Your task to perform on an android device: check google app version Image 0: 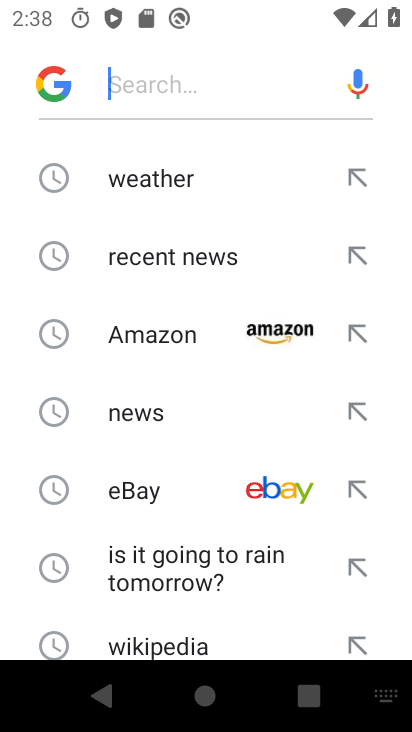
Step 0: press home button
Your task to perform on an android device: check google app version Image 1: 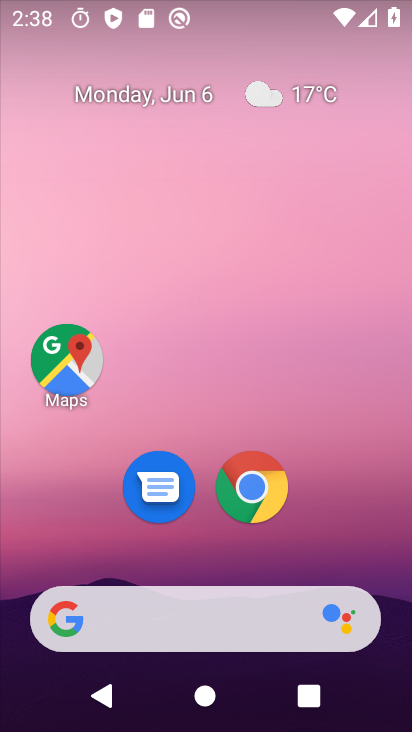
Step 1: drag from (148, 555) to (272, 39)
Your task to perform on an android device: check google app version Image 2: 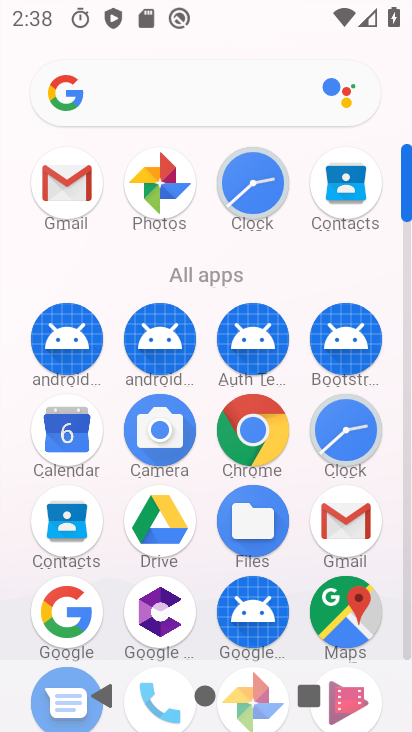
Step 2: drag from (220, 610) to (340, 314)
Your task to perform on an android device: check google app version Image 3: 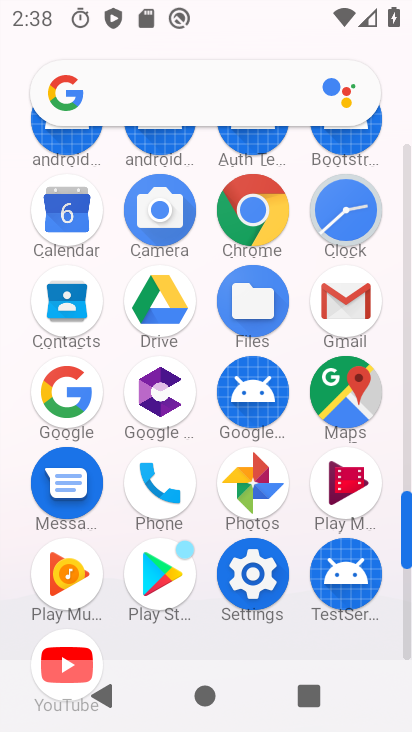
Step 3: click (251, 592)
Your task to perform on an android device: check google app version Image 4: 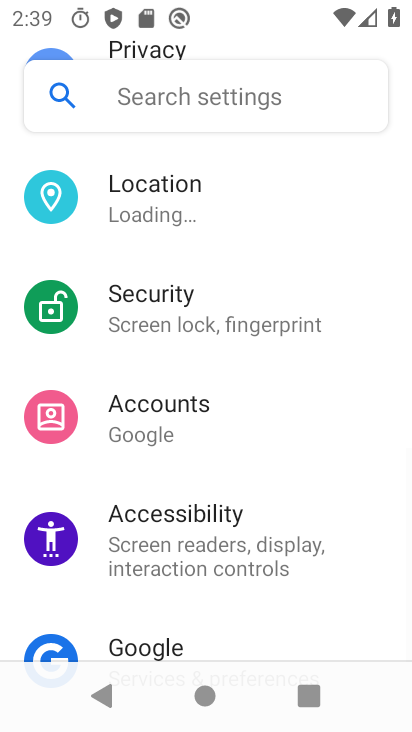
Step 4: drag from (222, 595) to (292, 644)
Your task to perform on an android device: check google app version Image 5: 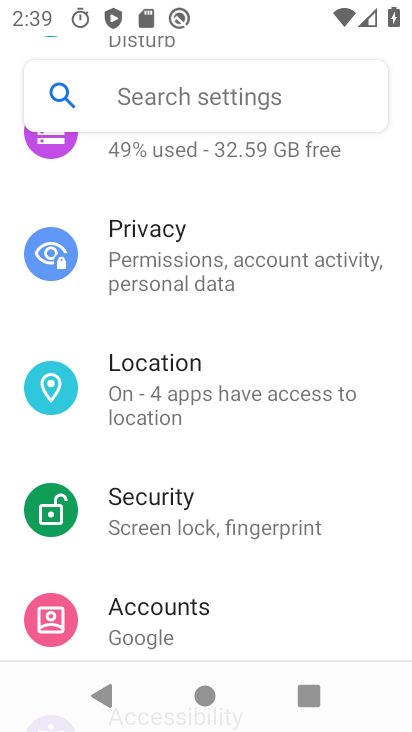
Step 5: drag from (271, 127) to (372, 650)
Your task to perform on an android device: check google app version Image 6: 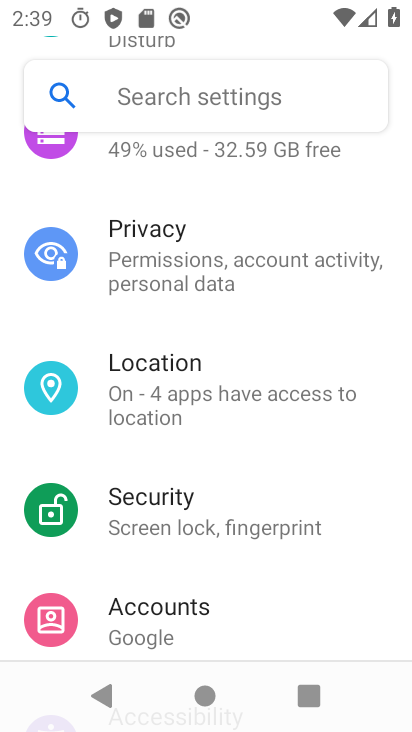
Step 6: drag from (322, 192) to (258, 532)
Your task to perform on an android device: check google app version Image 7: 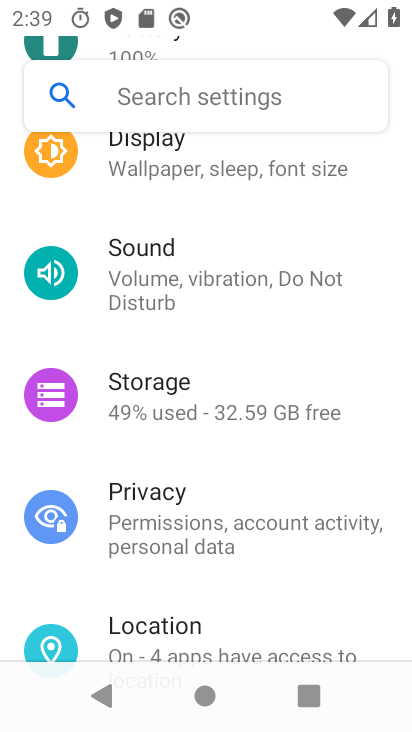
Step 7: drag from (276, 250) to (266, 712)
Your task to perform on an android device: check google app version Image 8: 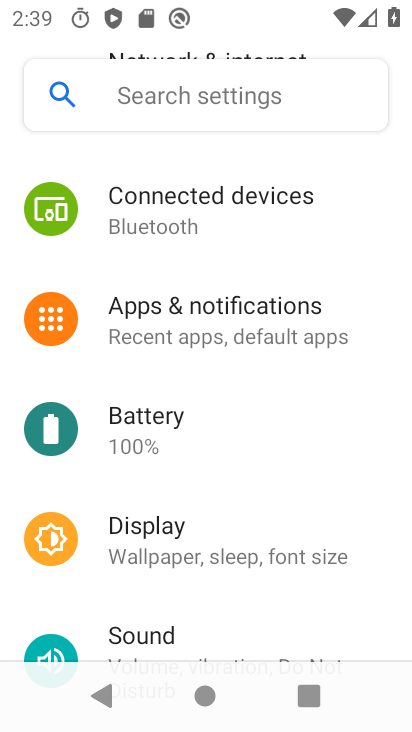
Step 8: drag from (259, 325) to (246, 605)
Your task to perform on an android device: check google app version Image 9: 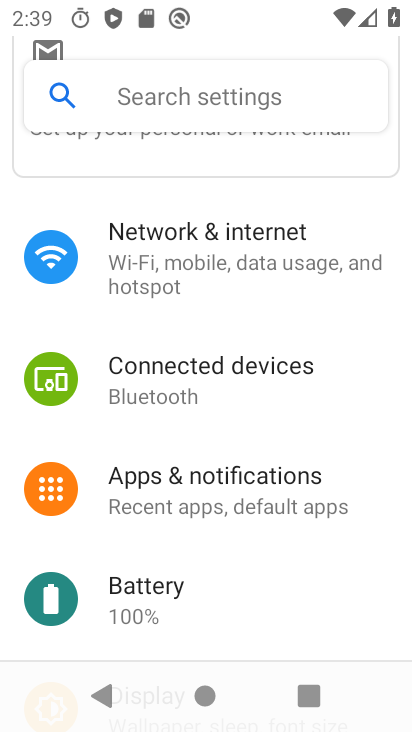
Step 9: drag from (224, 598) to (262, 563)
Your task to perform on an android device: check google app version Image 10: 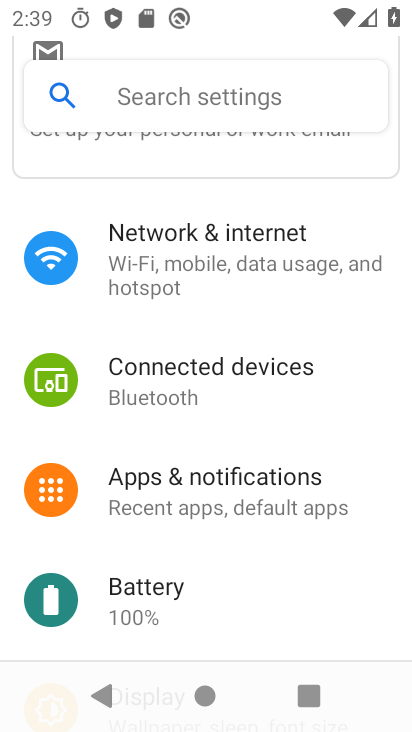
Step 10: drag from (201, 597) to (247, 418)
Your task to perform on an android device: check google app version Image 11: 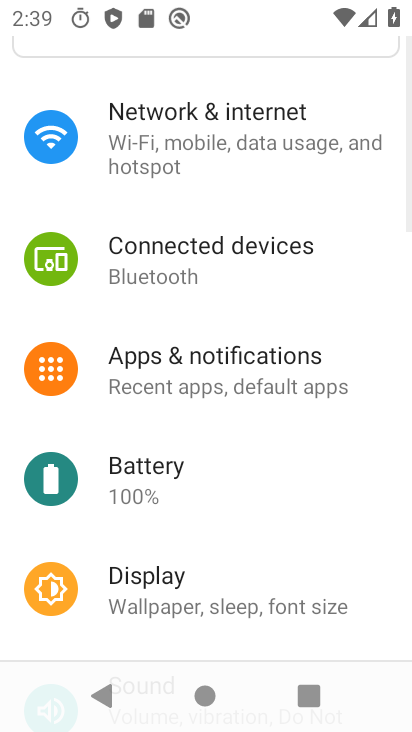
Step 11: click (245, 366)
Your task to perform on an android device: check google app version Image 12: 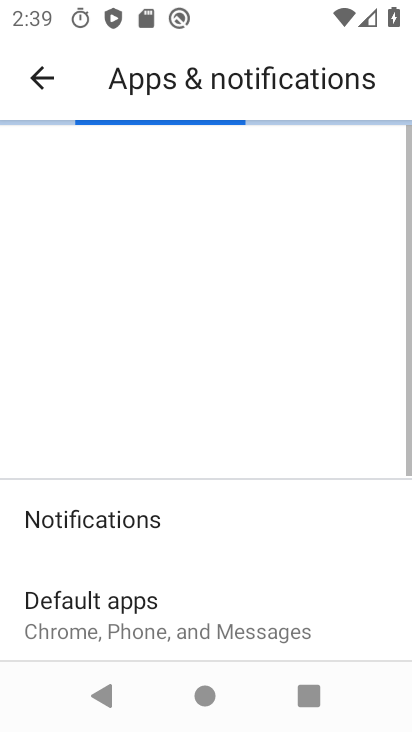
Step 12: click (245, 366)
Your task to perform on an android device: check google app version Image 13: 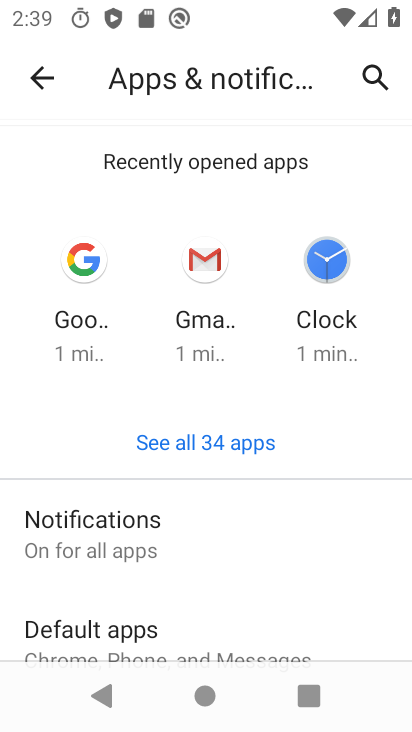
Step 13: drag from (198, 588) to (351, 199)
Your task to perform on an android device: check google app version Image 14: 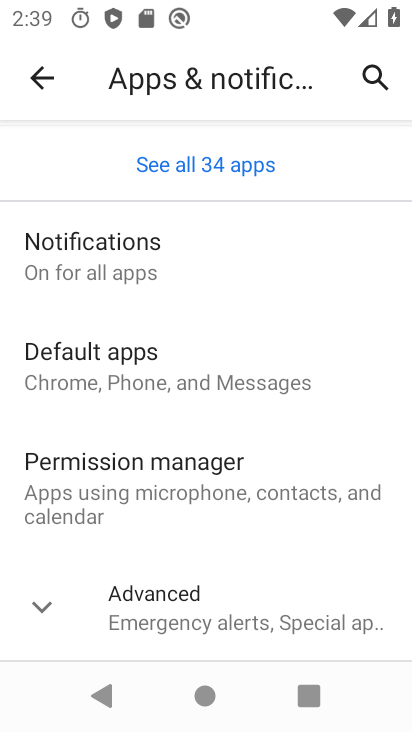
Step 14: drag from (179, 272) to (145, 654)
Your task to perform on an android device: check google app version Image 15: 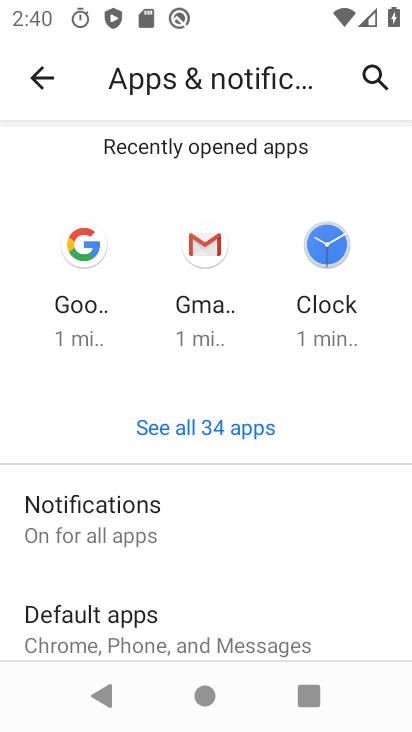
Step 15: click (228, 425)
Your task to perform on an android device: check google app version Image 16: 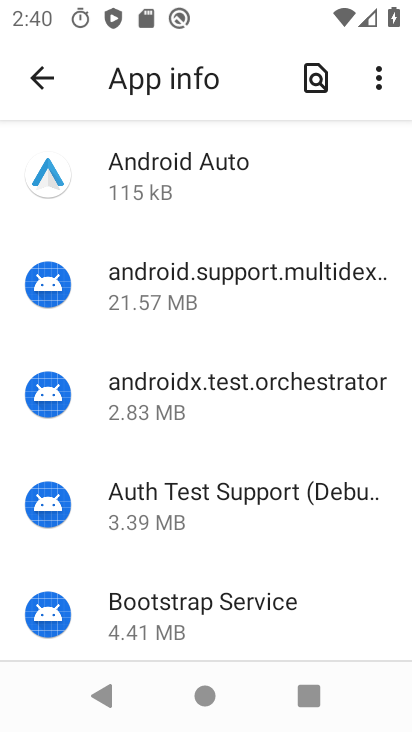
Step 16: drag from (181, 609) to (299, 109)
Your task to perform on an android device: check google app version Image 17: 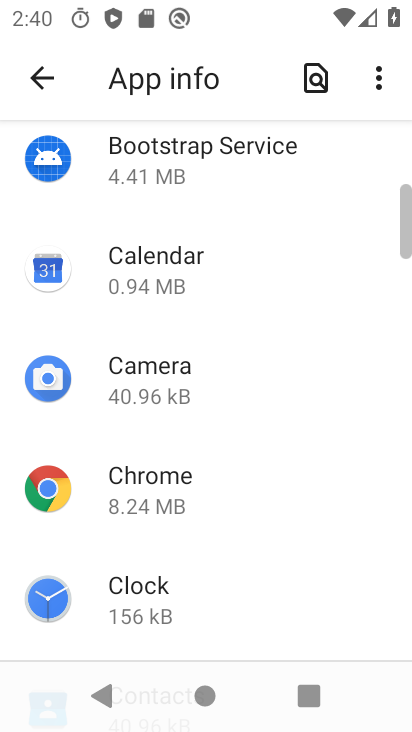
Step 17: drag from (260, 410) to (303, 165)
Your task to perform on an android device: check google app version Image 18: 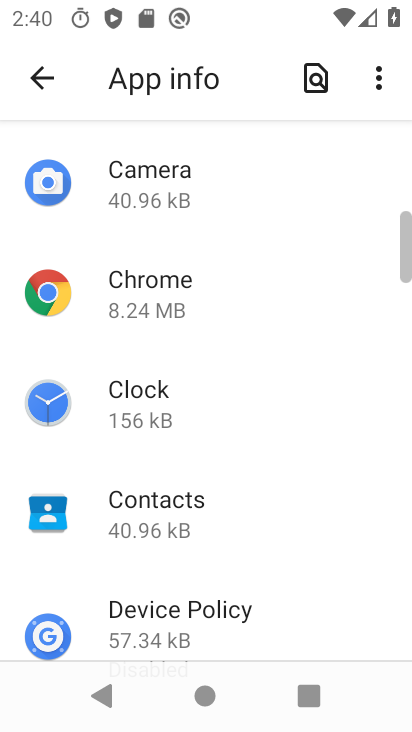
Step 18: drag from (151, 582) to (257, 145)
Your task to perform on an android device: check google app version Image 19: 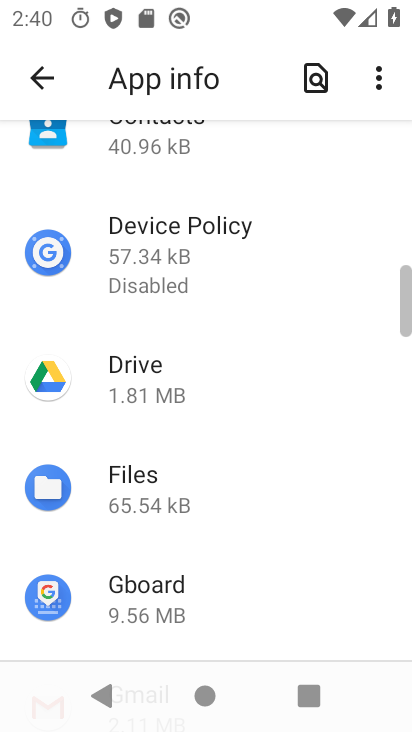
Step 19: drag from (128, 489) to (234, 168)
Your task to perform on an android device: check google app version Image 20: 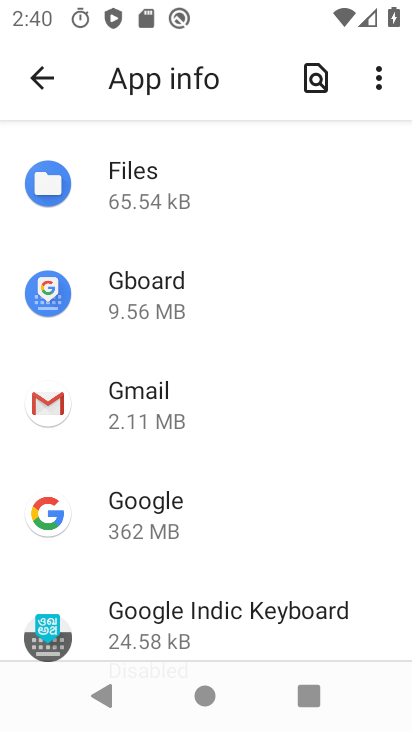
Step 20: click (124, 523)
Your task to perform on an android device: check google app version Image 21: 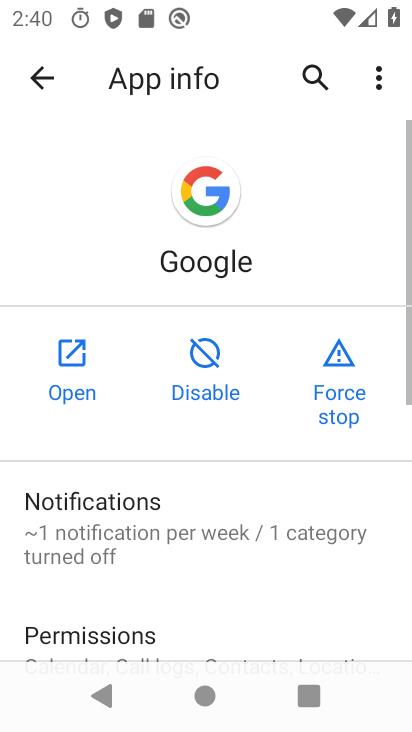
Step 21: drag from (125, 618) to (306, 44)
Your task to perform on an android device: check google app version Image 22: 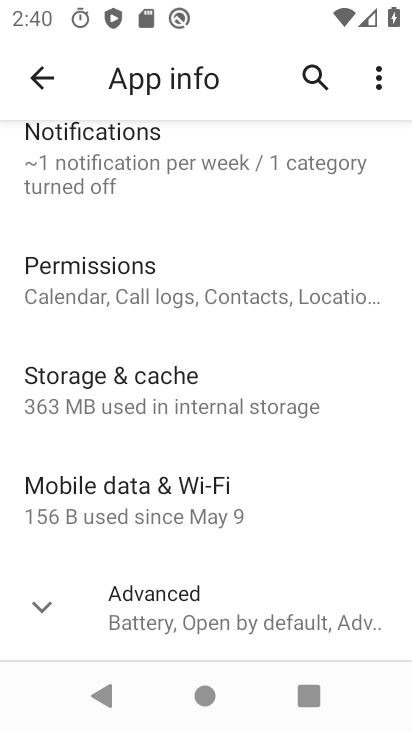
Step 22: click (243, 587)
Your task to perform on an android device: check google app version Image 23: 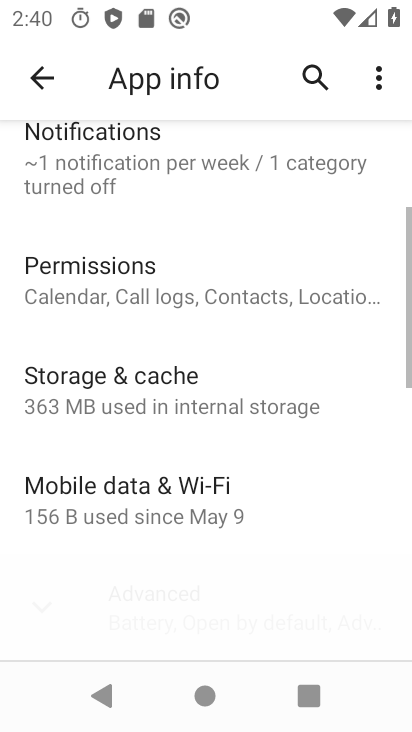
Step 23: task complete